Your task to perform on an android device: turn off location Image 0: 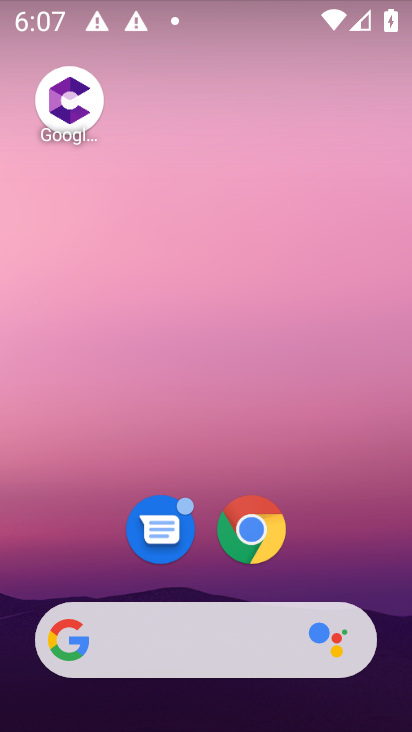
Step 0: drag from (201, 434) to (216, 60)
Your task to perform on an android device: turn off location Image 1: 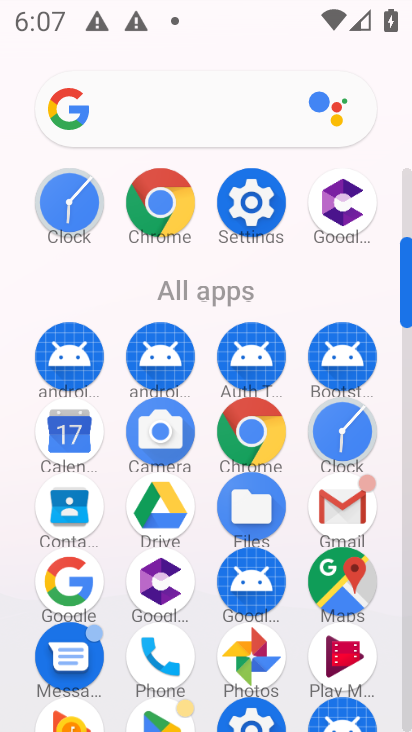
Step 1: click (253, 203)
Your task to perform on an android device: turn off location Image 2: 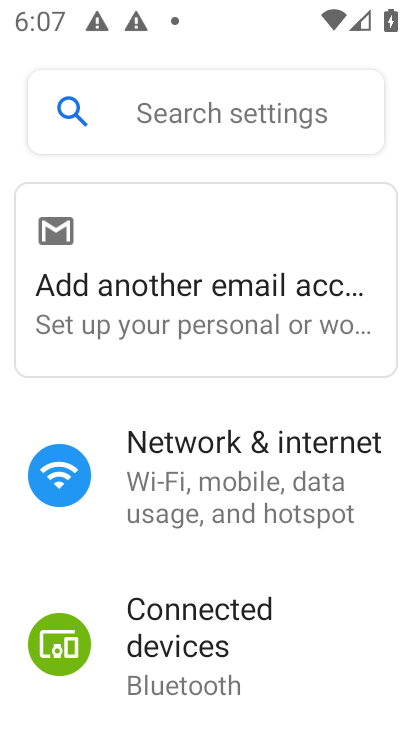
Step 2: drag from (302, 633) to (302, 336)
Your task to perform on an android device: turn off location Image 3: 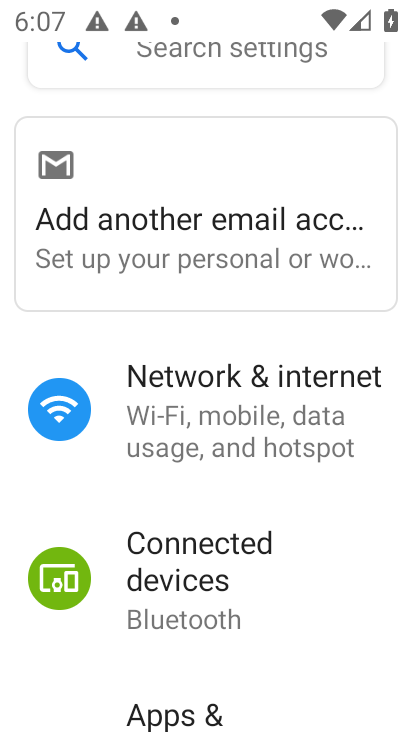
Step 3: drag from (242, 599) to (242, 251)
Your task to perform on an android device: turn off location Image 4: 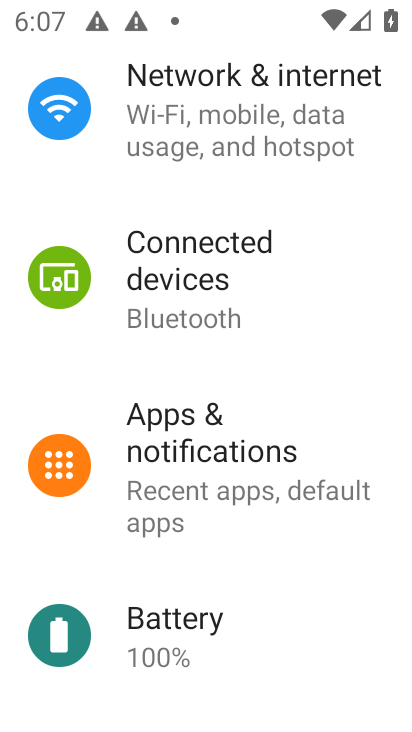
Step 4: drag from (263, 579) to (216, 294)
Your task to perform on an android device: turn off location Image 5: 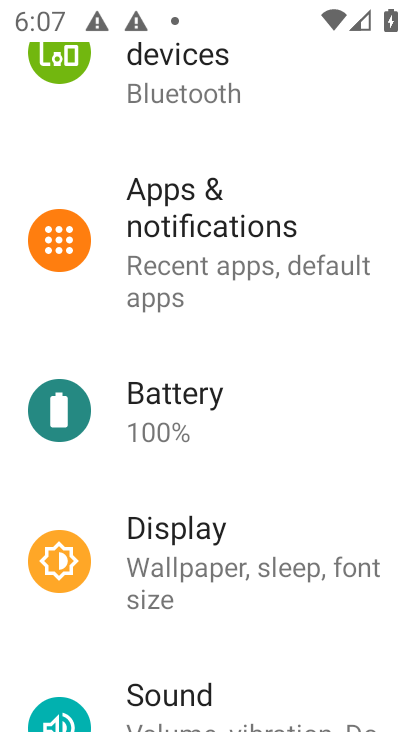
Step 5: drag from (253, 494) to (250, 242)
Your task to perform on an android device: turn off location Image 6: 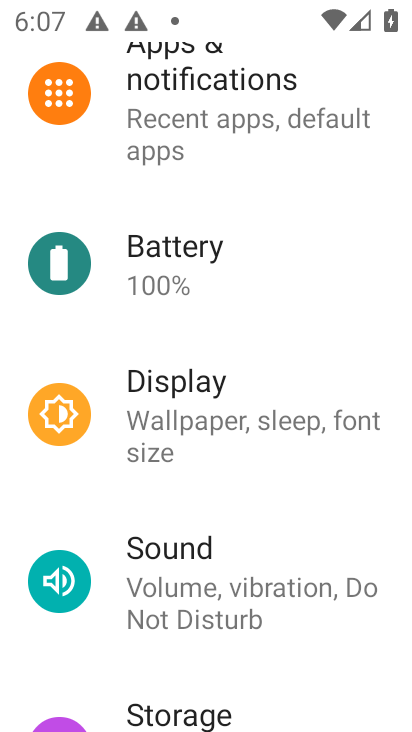
Step 6: click (244, 649)
Your task to perform on an android device: turn off location Image 7: 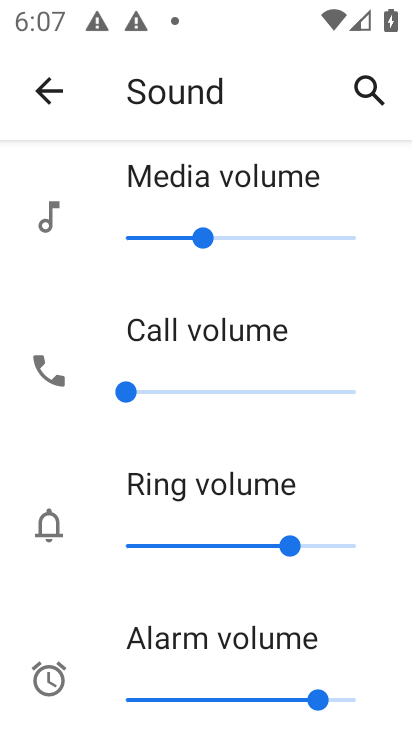
Step 7: click (37, 93)
Your task to perform on an android device: turn off location Image 8: 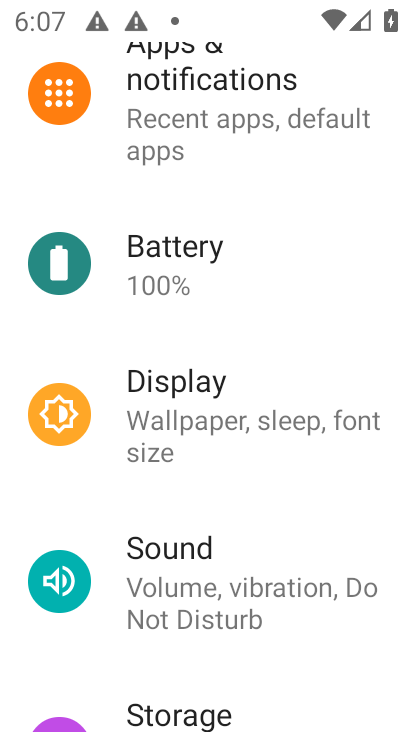
Step 8: drag from (262, 543) to (261, 330)
Your task to perform on an android device: turn off location Image 9: 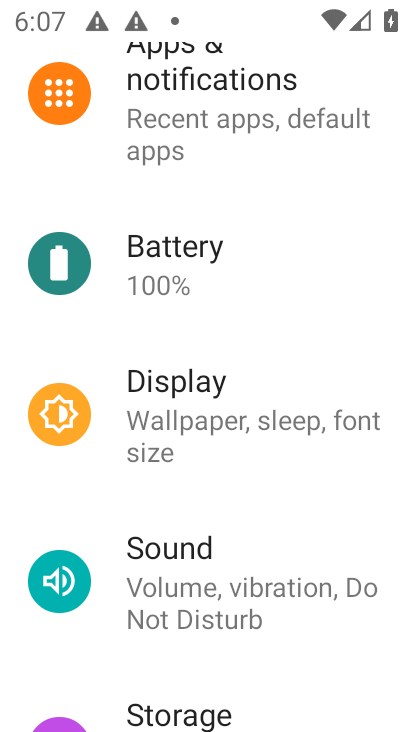
Step 9: drag from (267, 680) to (267, 443)
Your task to perform on an android device: turn off location Image 10: 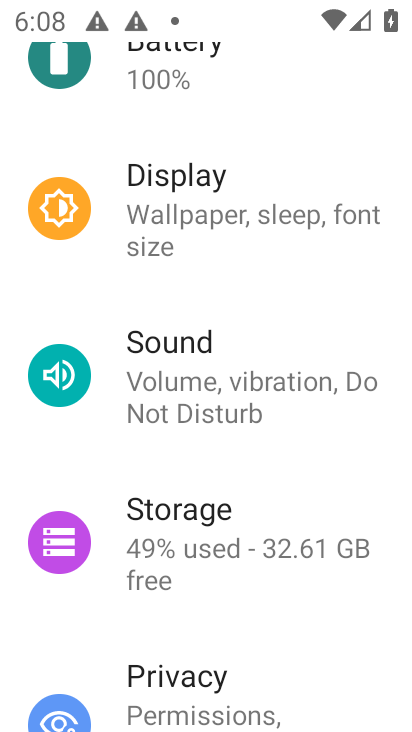
Step 10: drag from (265, 613) to (242, 300)
Your task to perform on an android device: turn off location Image 11: 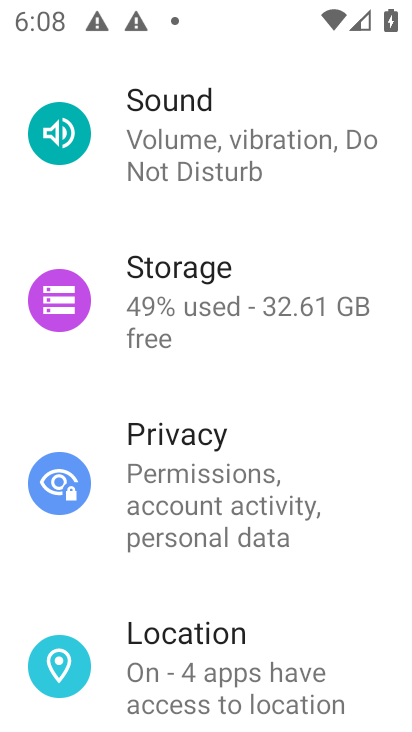
Step 11: click (192, 663)
Your task to perform on an android device: turn off location Image 12: 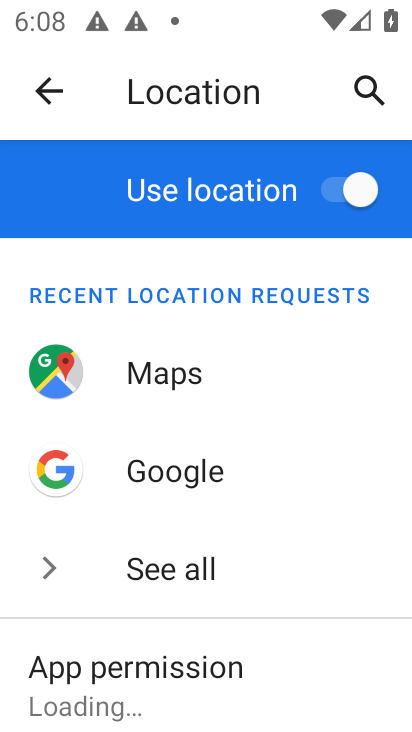
Step 12: click (340, 193)
Your task to perform on an android device: turn off location Image 13: 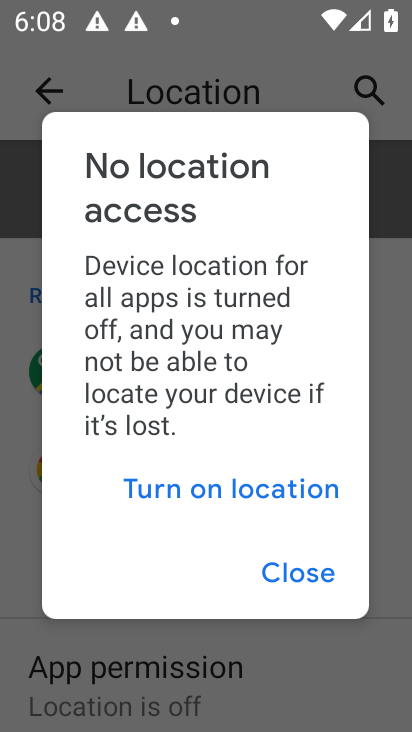
Step 13: task complete